Your task to perform on an android device: toggle sleep mode Image 0: 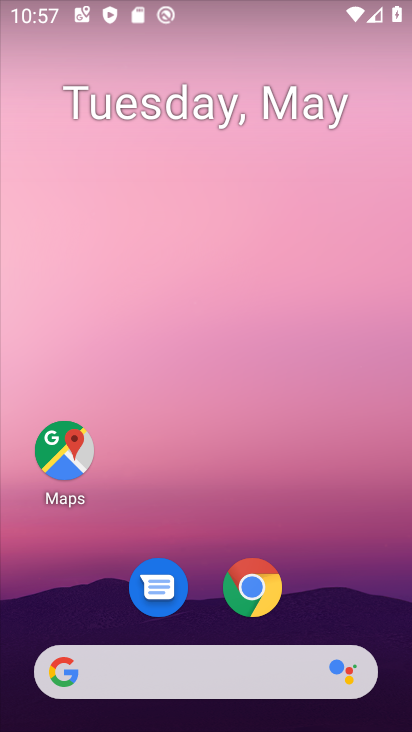
Step 0: drag from (290, 573) to (252, 32)
Your task to perform on an android device: toggle sleep mode Image 1: 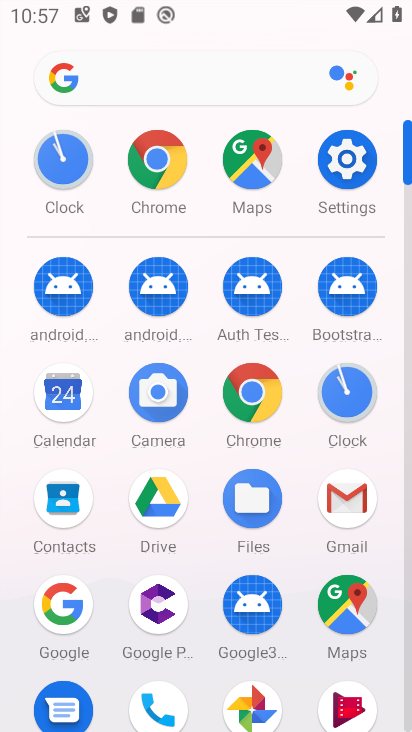
Step 1: click (350, 153)
Your task to perform on an android device: toggle sleep mode Image 2: 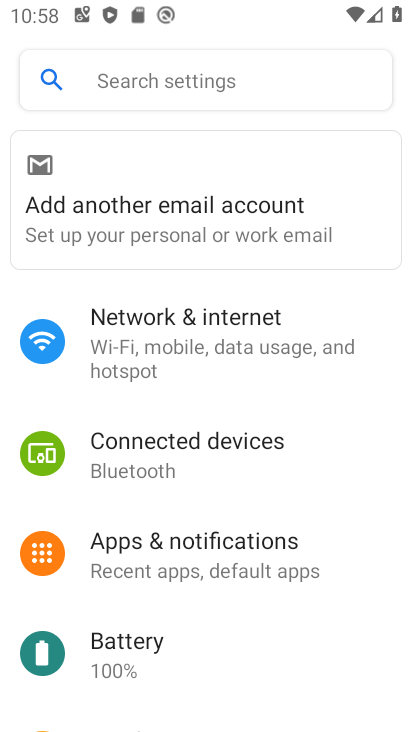
Step 2: drag from (237, 612) to (260, 286)
Your task to perform on an android device: toggle sleep mode Image 3: 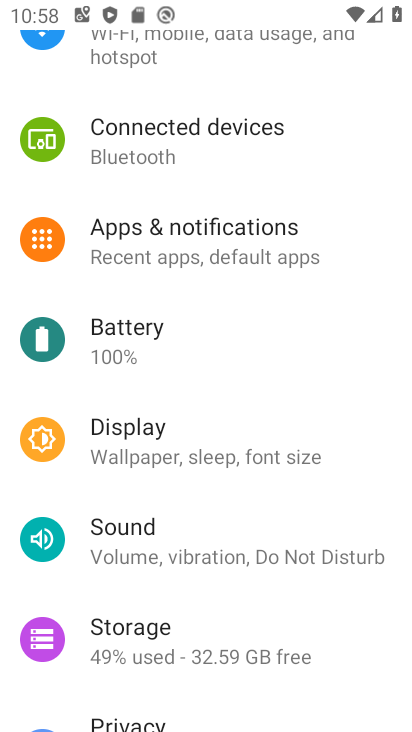
Step 3: click (233, 438)
Your task to perform on an android device: toggle sleep mode Image 4: 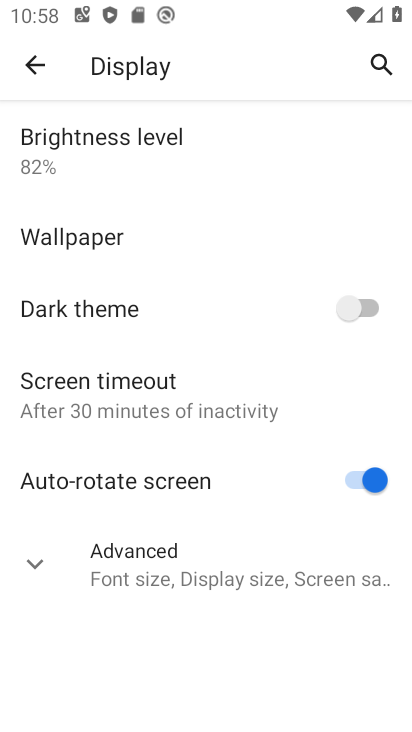
Step 4: click (38, 556)
Your task to perform on an android device: toggle sleep mode Image 5: 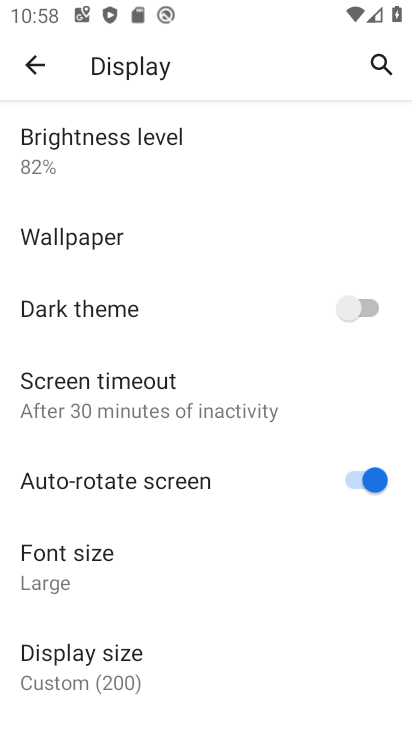
Step 5: drag from (226, 577) to (277, 135)
Your task to perform on an android device: toggle sleep mode Image 6: 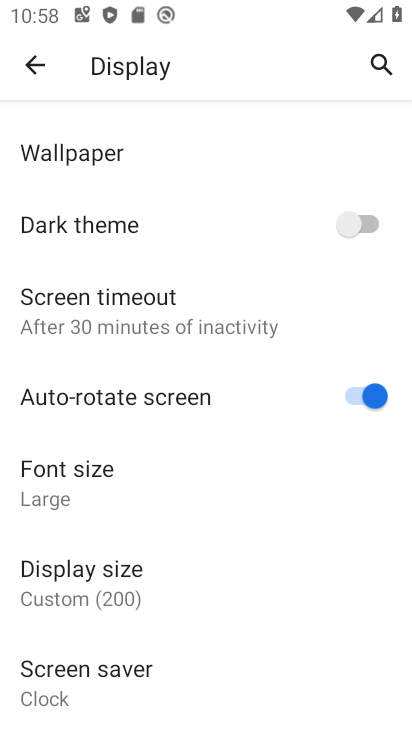
Step 6: drag from (220, 585) to (232, 192)
Your task to perform on an android device: toggle sleep mode Image 7: 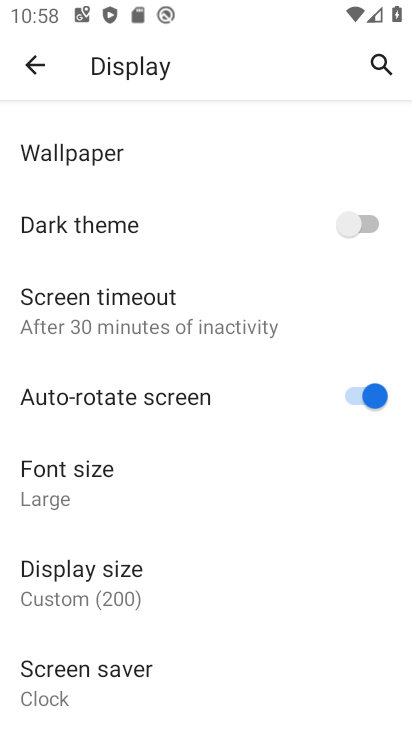
Step 7: click (44, 61)
Your task to perform on an android device: toggle sleep mode Image 8: 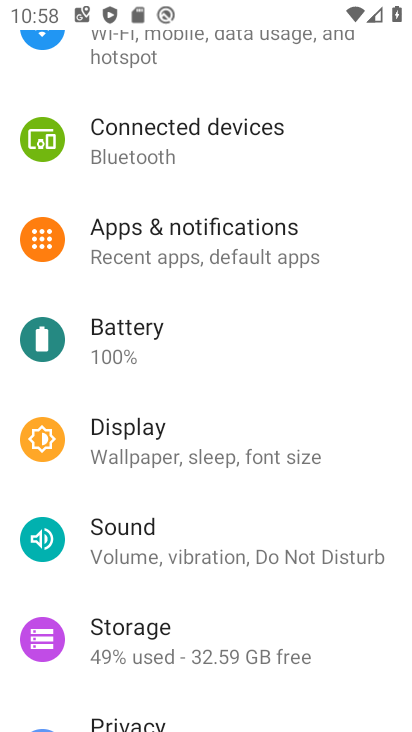
Step 8: click (273, 451)
Your task to perform on an android device: toggle sleep mode Image 9: 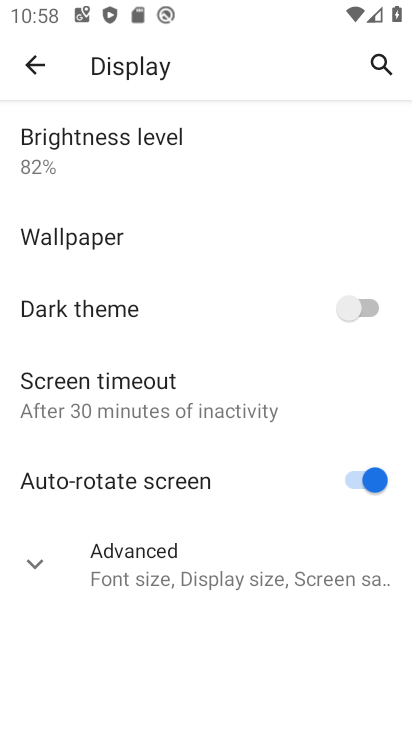
Step 9: task complete